Your task to perform on an android device: open a bookmark in the chrome app Image 0: 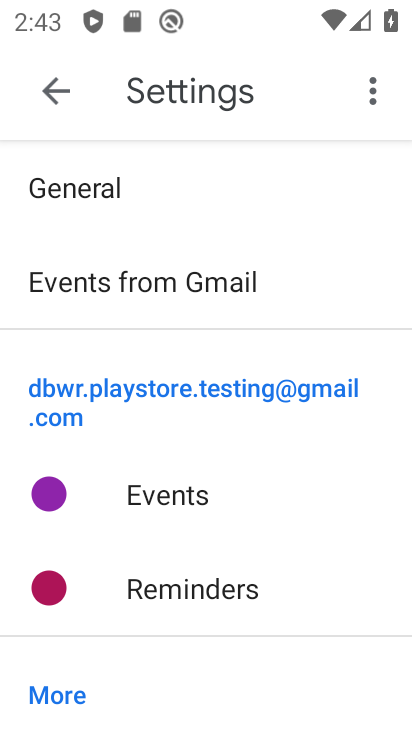
Step 0: press home button
Your task to perform on an android device: open a bookmark in the chrome app Image 1: 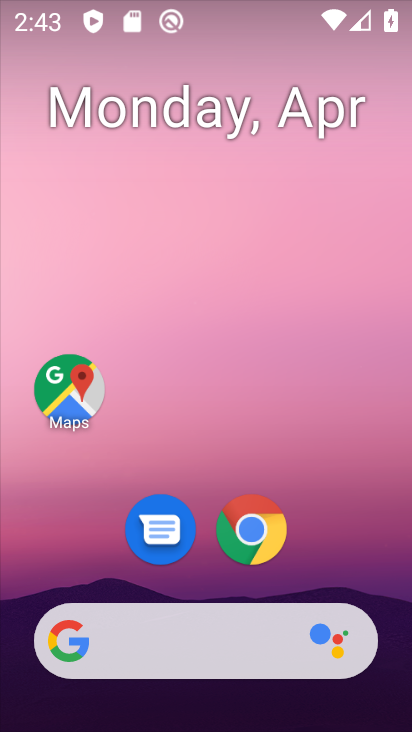
Step 1: drag from (240, 672) to (252, 324)
Your task to perform on an android device: open a bookmark in the chrome app Image 2: 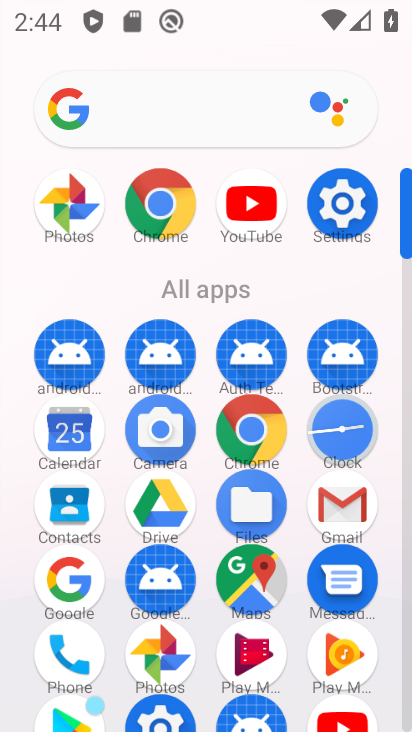
Step 2: click (272, 416)
Your task to perform on an android device: open a bookmark in the chrome app Image 3: 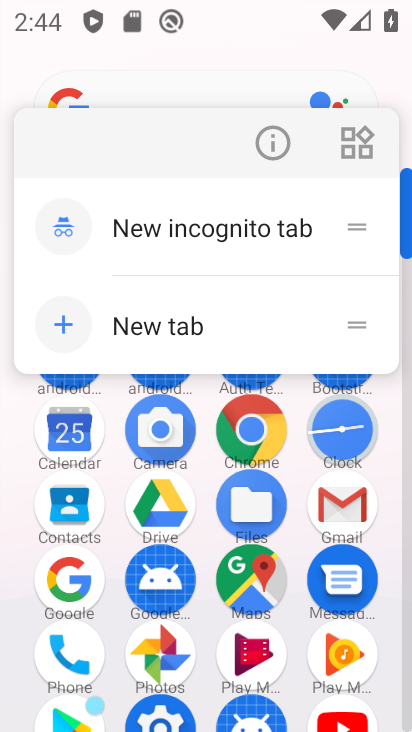
Step 3: click (238, 454)
Your task to perform on an android device: open a bookmark in the chrome app Image 4: 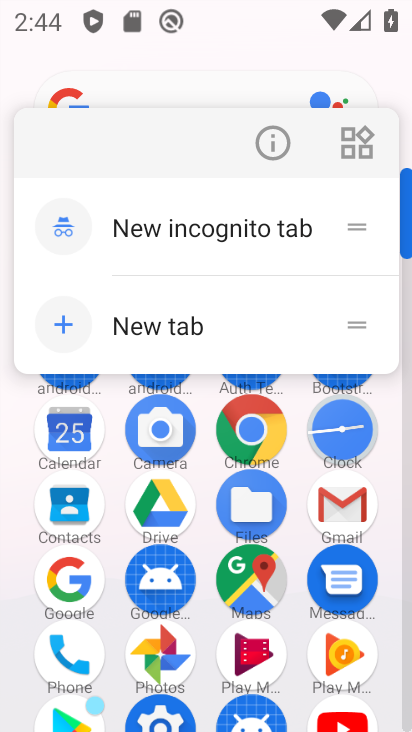
Step 4: click (256, 437)
Your task to perform on an android device: open a bookmark in the chrome app Image 5: 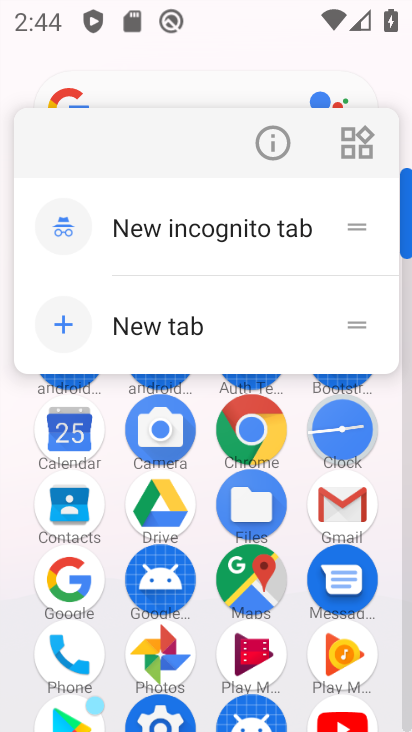
Step 5: click (261, 428)
Your task to perform on an android device: open a bookmark in the chrome app Image 6: 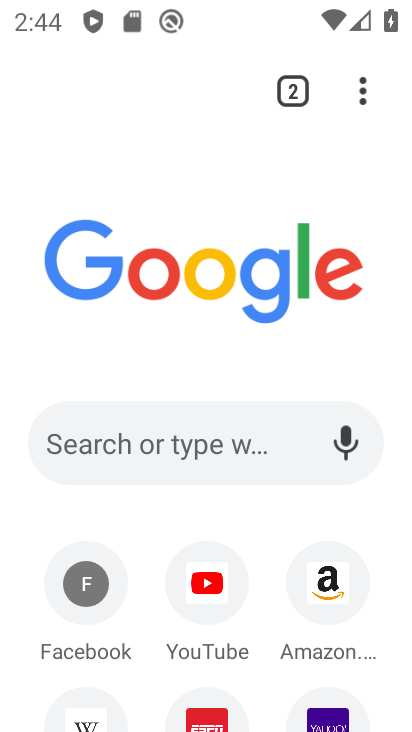
Step 6: click (363, 92)
Your task to perform on an android device: open a bookmark in the chrome app Image 7: 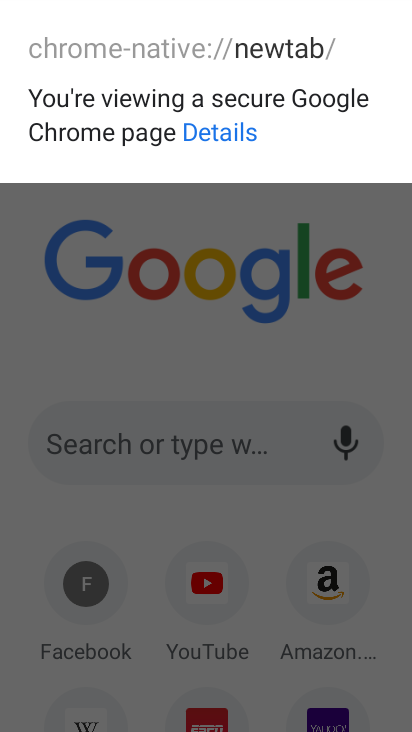
Step 7: press back button
Your task to perform on an android device: open a bookmark in the chrome app Image 8: 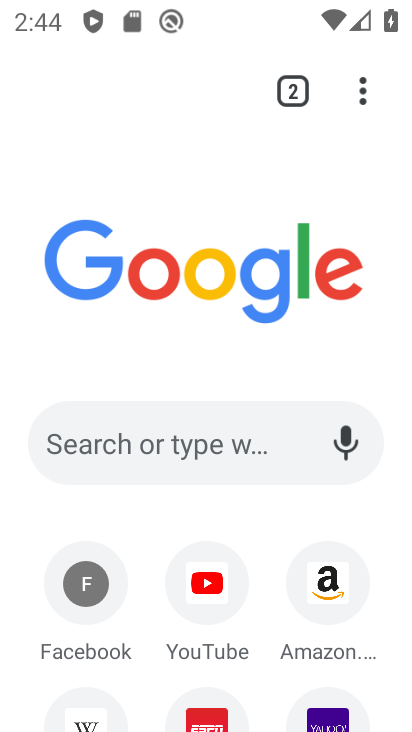
Step 8: click (374, 101)
Your task to perform on an android device: open a bookmark in the chrome app Image 9: 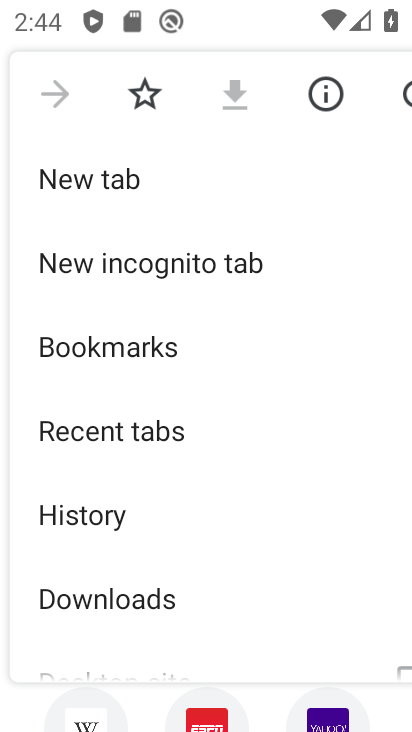
Step 9: click (109, 364)
Your task to perform on an android device: open a bookmark in the chrome app Image 10: 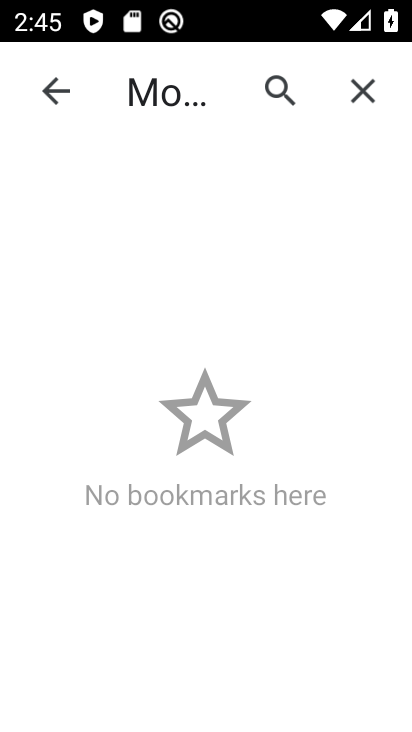
Step 10: task complete